Your task to perform on an android device: Go to sound settings Image 0: 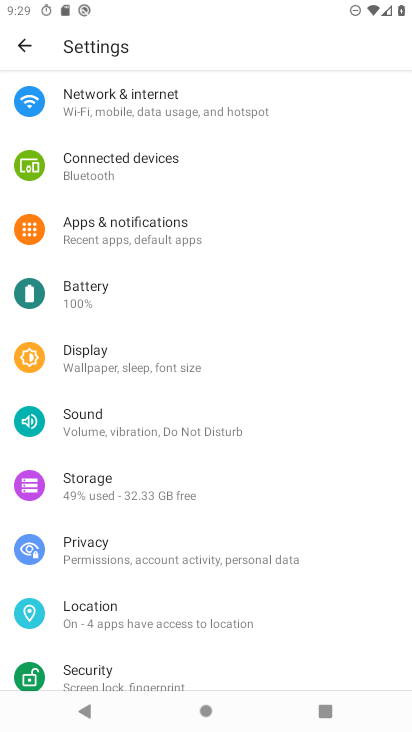
Step 0: click (78, 411)
Your task to perform on an android device: Go to sound settings Image 1: 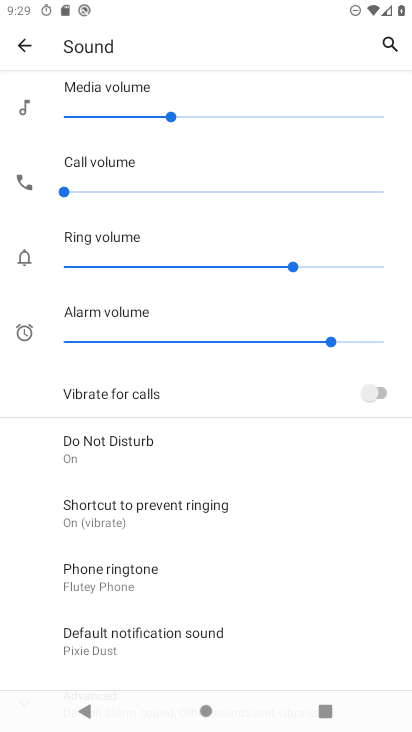
Step 1: drag from (306, 658) to (310, 258)
Your task to perform on an android device: Go to sound settings Image 2: 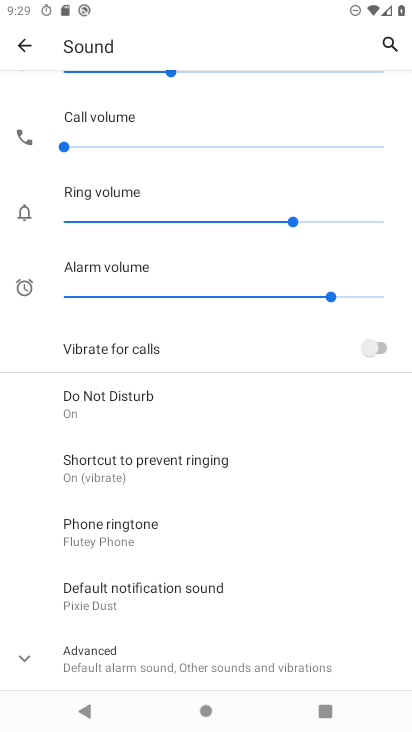
Step 2: drag from (296, 558) to (285, 447)
Your task to perform on an android device: Go to sound settings Image 3: 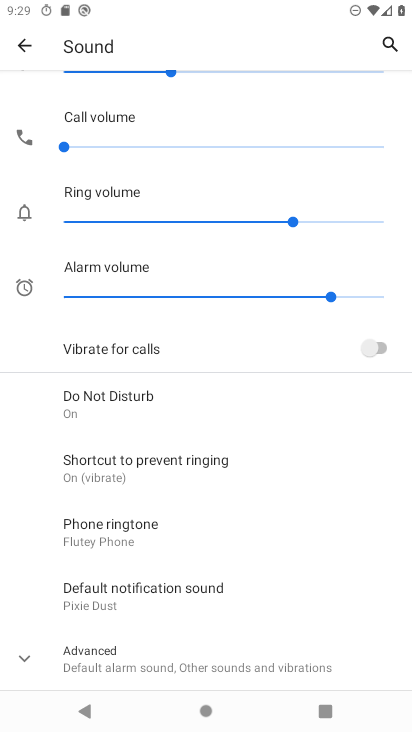
Step 3: click (25, 660)
Your task to perform on an android device: Go to sound settings Image 4: 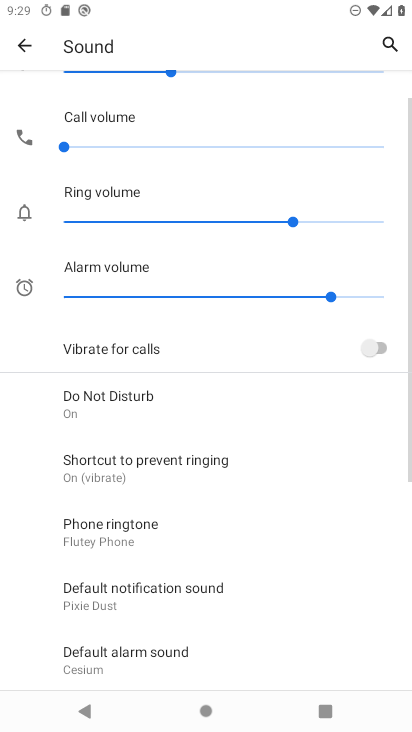
Step 4: task complete